Your task to perform on an android device: open app "Expedia: Hotels, Flights & Car" (install if not already installed) and go to login screen Image 0: 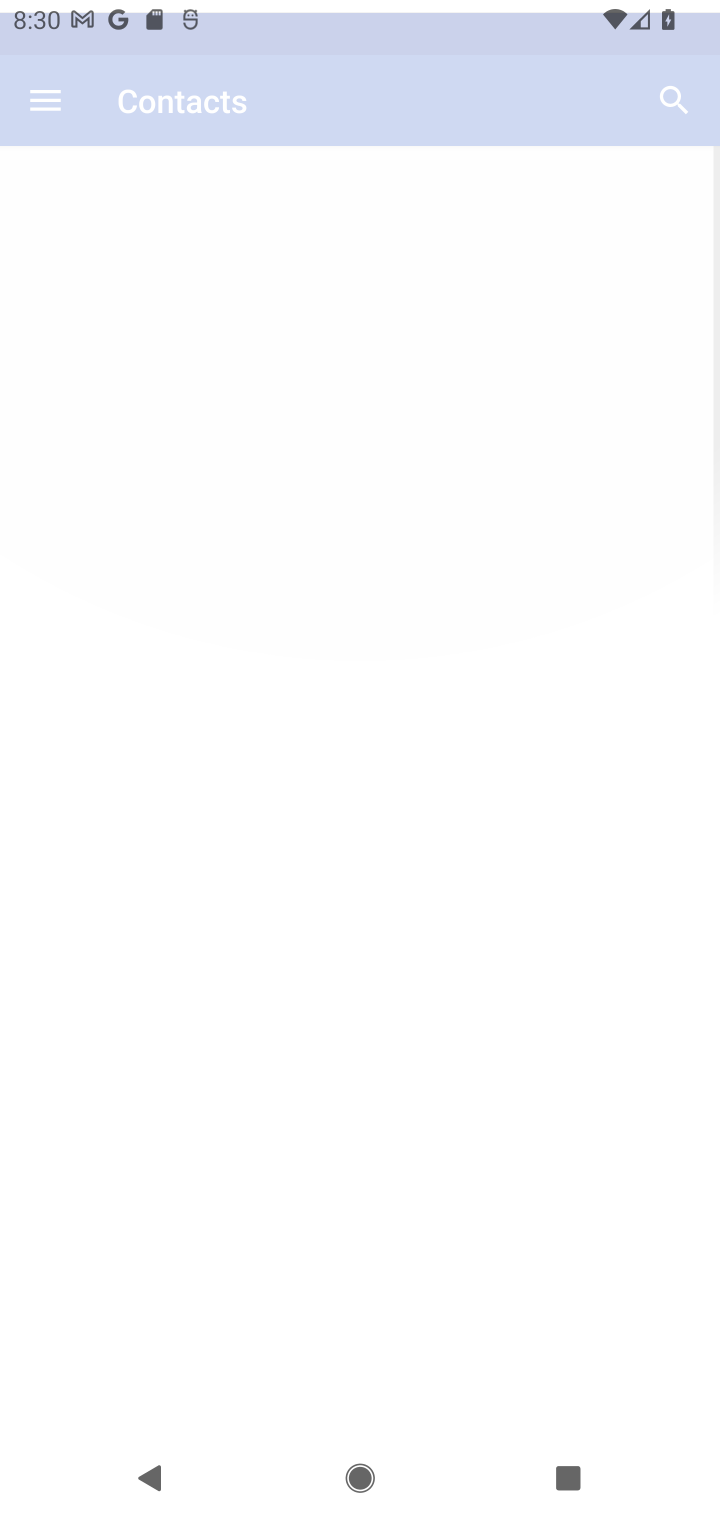
Step 0: press home button
Your task to perform on an android device: open app "Expedia: Hotels, Flights & Car" (install if not already installed) and go to login screen Image 1: 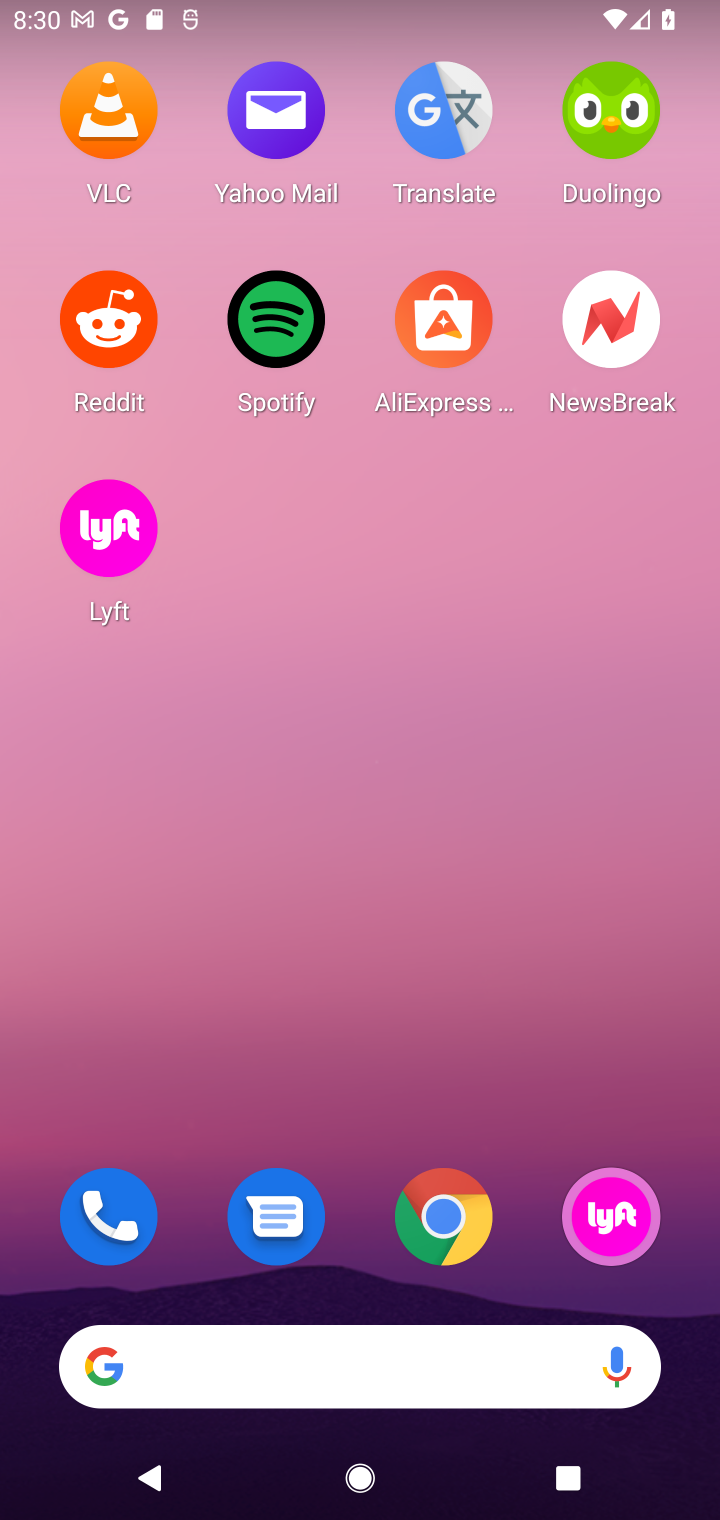
Step 1: press home button
Your task to perform on an android device: open app "Expedia: Hotels, Flights & Car" (install if not already installed) and go to login screen Image 2: 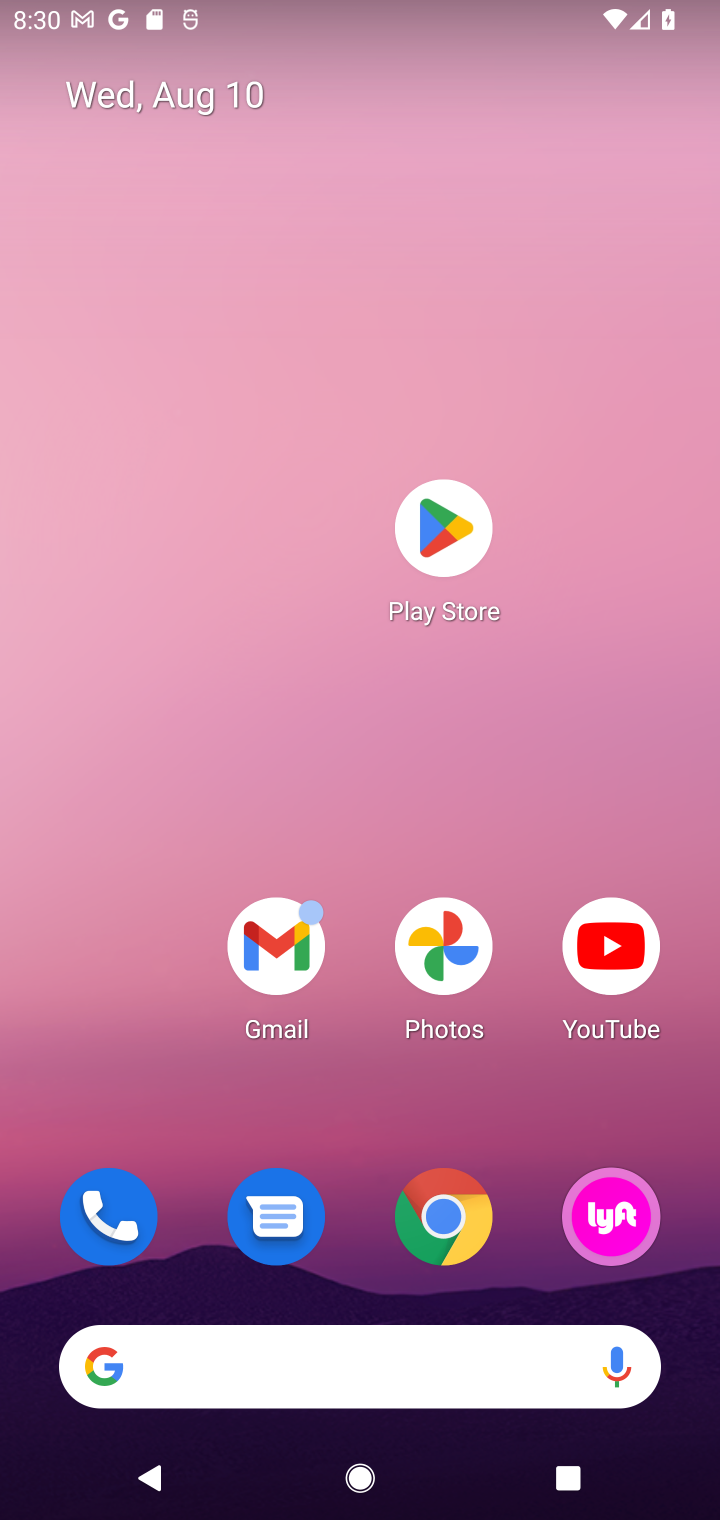
Step 2: click (437, 525)
Your task to perform on an android device: open app "Expedia: Hotels, Flights & Car" (install if not already installed) and go to login screen Image 3: 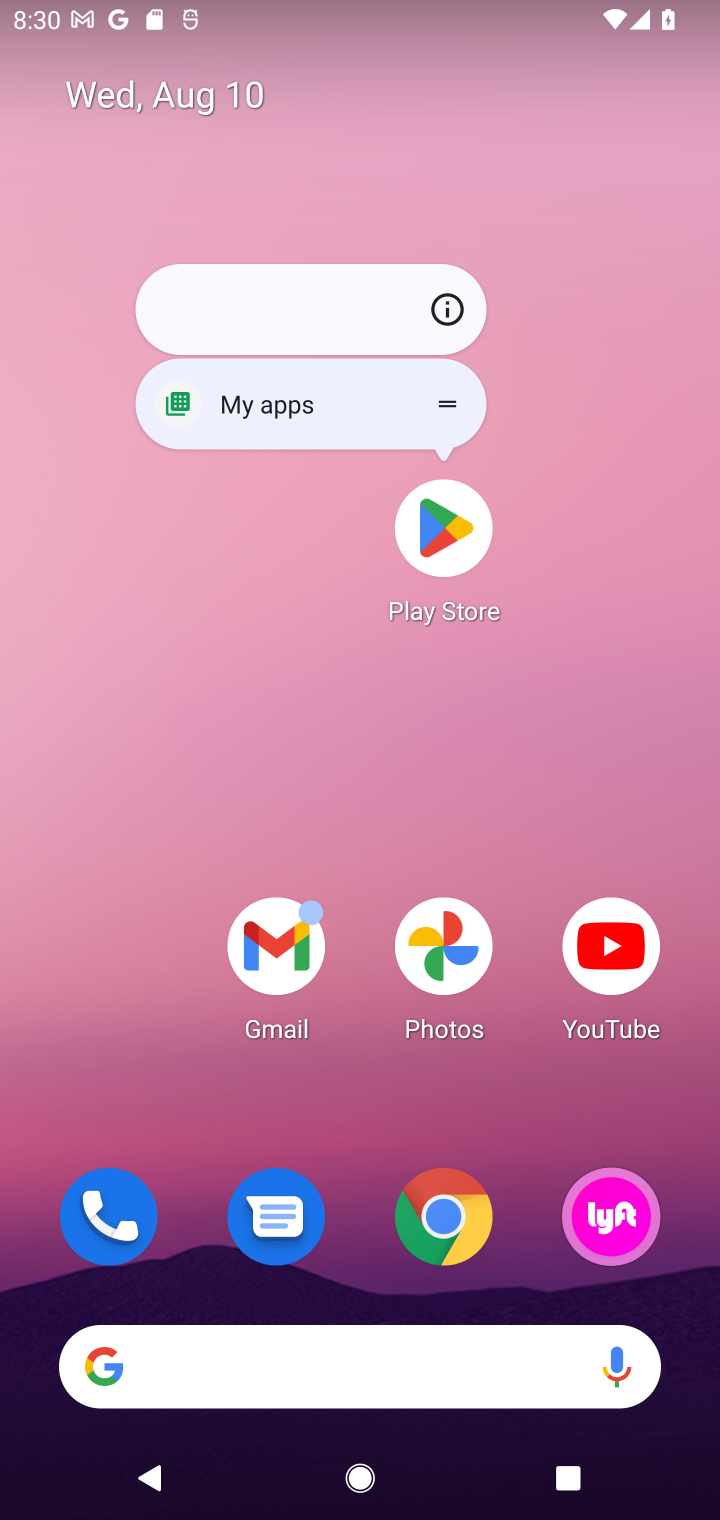
Step 3: click (439, 527)
Your task to perform on an android device: open app "Expedia: Hotels, Flights & Car" (install if not already installed) and go to login screen Image 4: 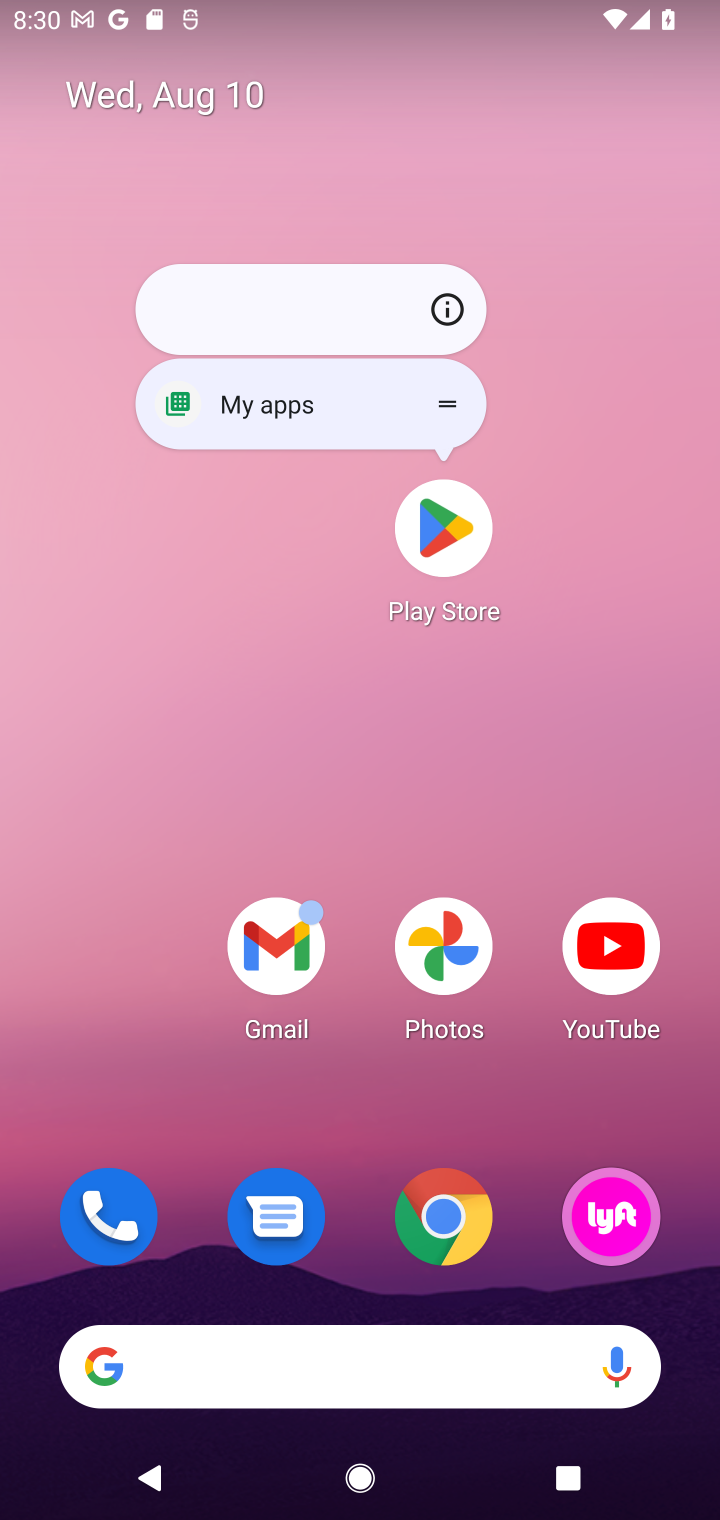
Step 4: click (439, 527)
Your task to perform on an android device: open app "Expedia: Hotels, Flights & Car" (install if not already installed) and go to login screen Image 5: 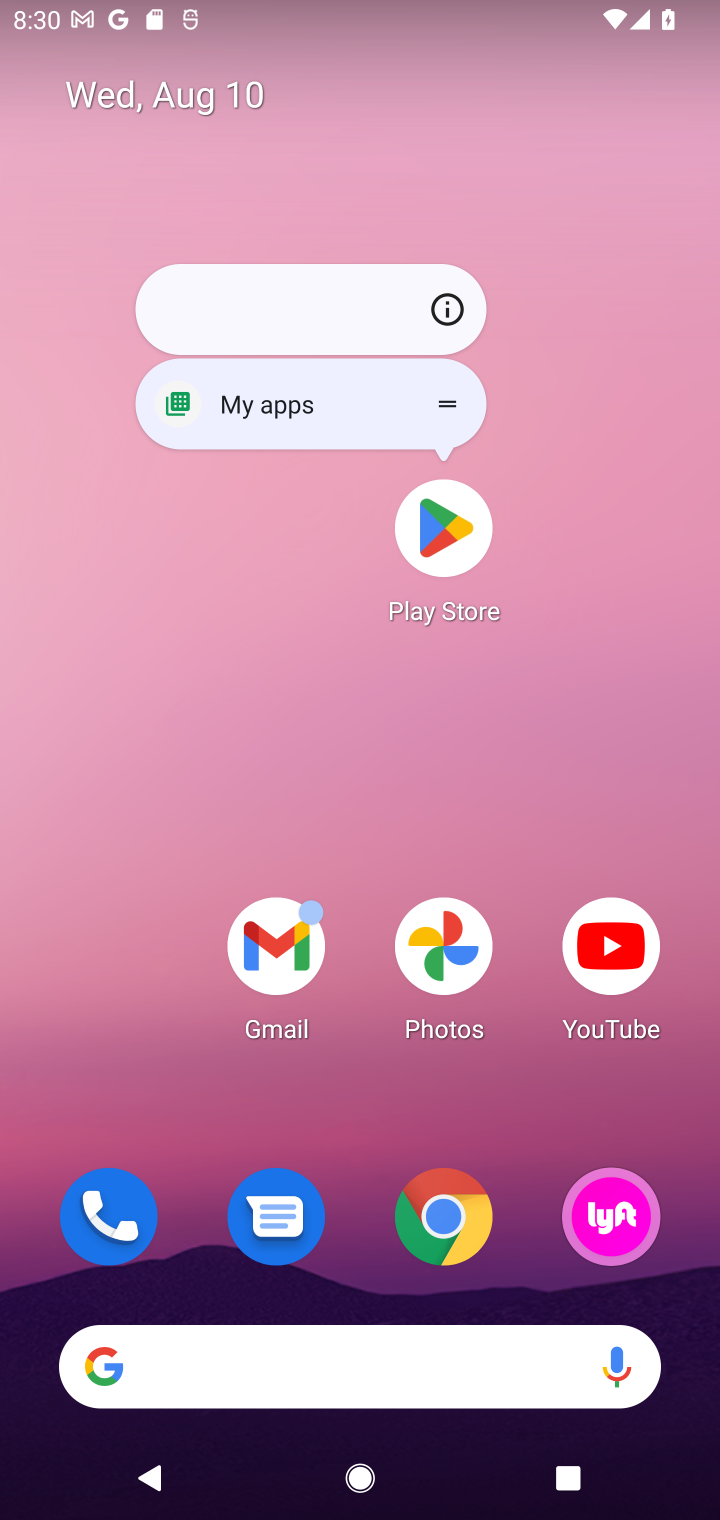
Step 5: click (439, 527)
Your task to perform on an android device: open app "Expedia: Hotels, Flights & Car" (install if not already installed) and go to login screen Image 6: 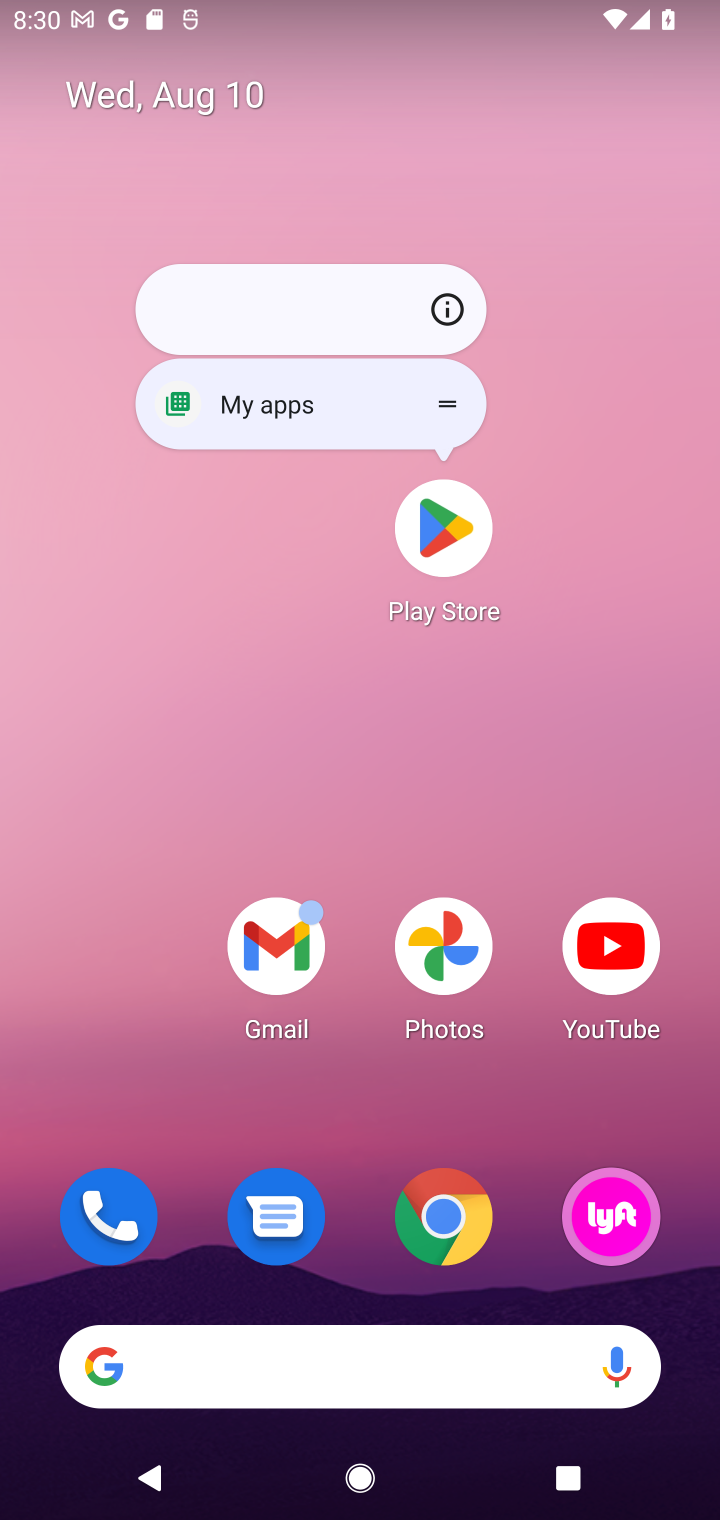
Step 6: click (439, 529)
Your task to perform on an android device: open app "Expedia: Hotels, Flights & Car" (install if not already installed) and go to login screen Image 7: 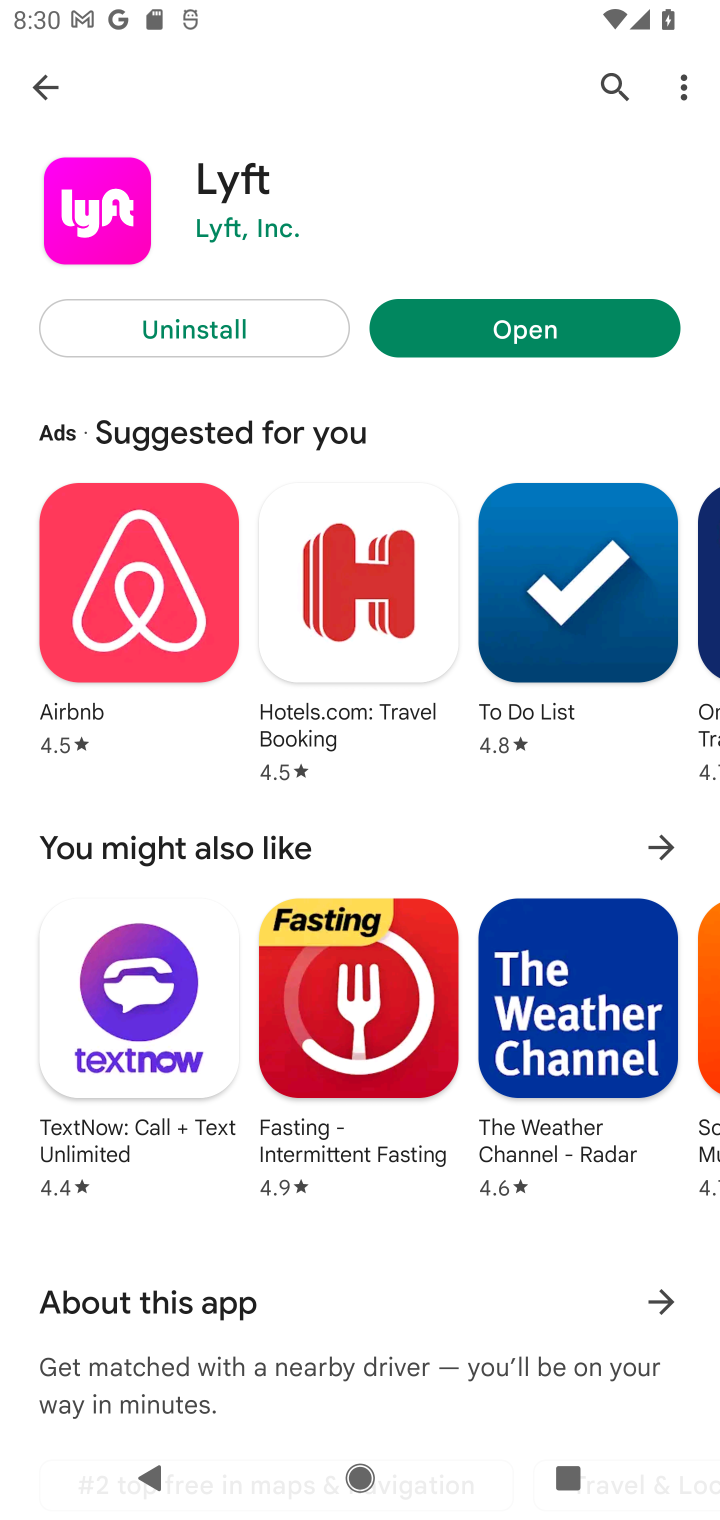
Step 7: click (601, 74)
Your task to perform on an android device: open app "Expedia: Hotels, Flights & Car" (install if not already installed) and go to login screen Image 8: 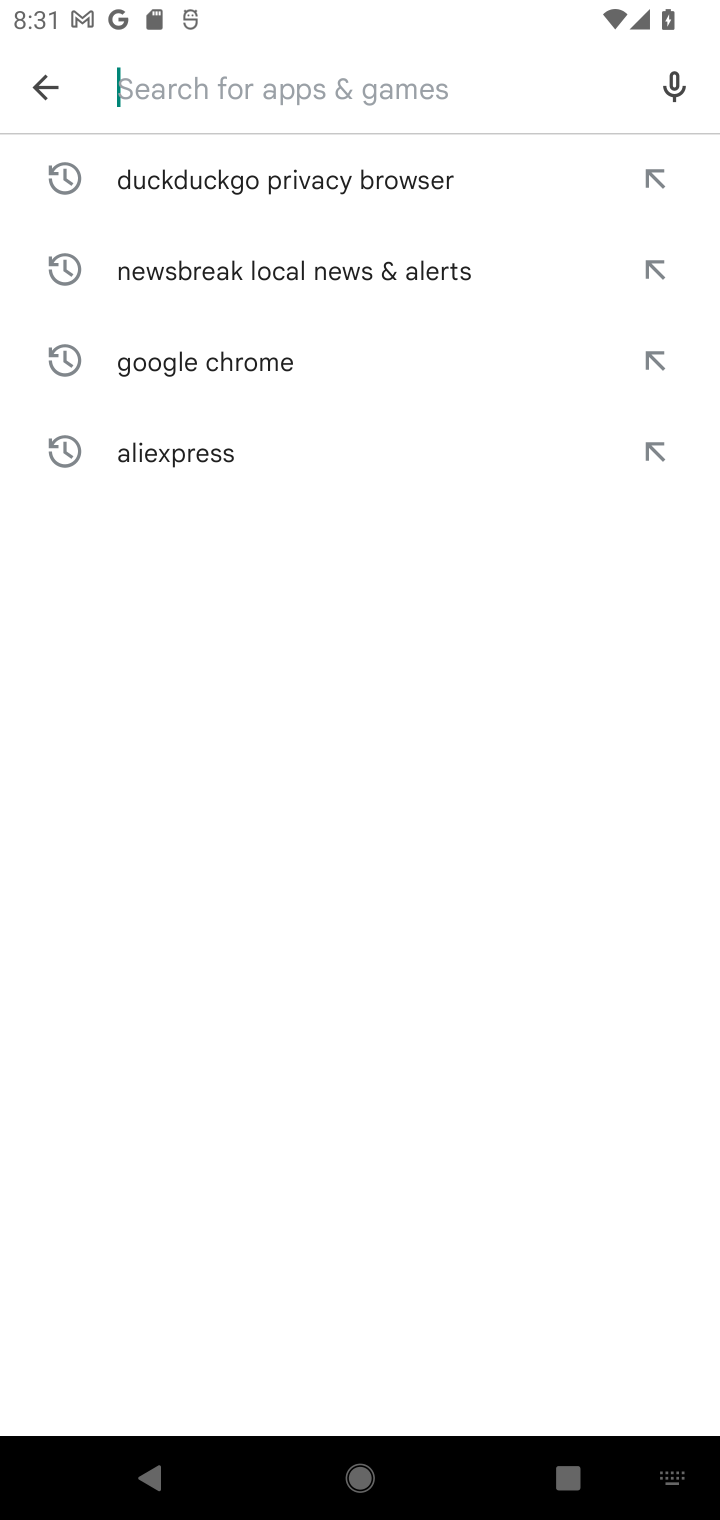
Step 8: type "Expedia: Hotels, Flights & Car"
Your task to perform on an android device: open app "Expedia: Hotels, Flights & Car" (install if not already installed) and go to login screen Image 9: 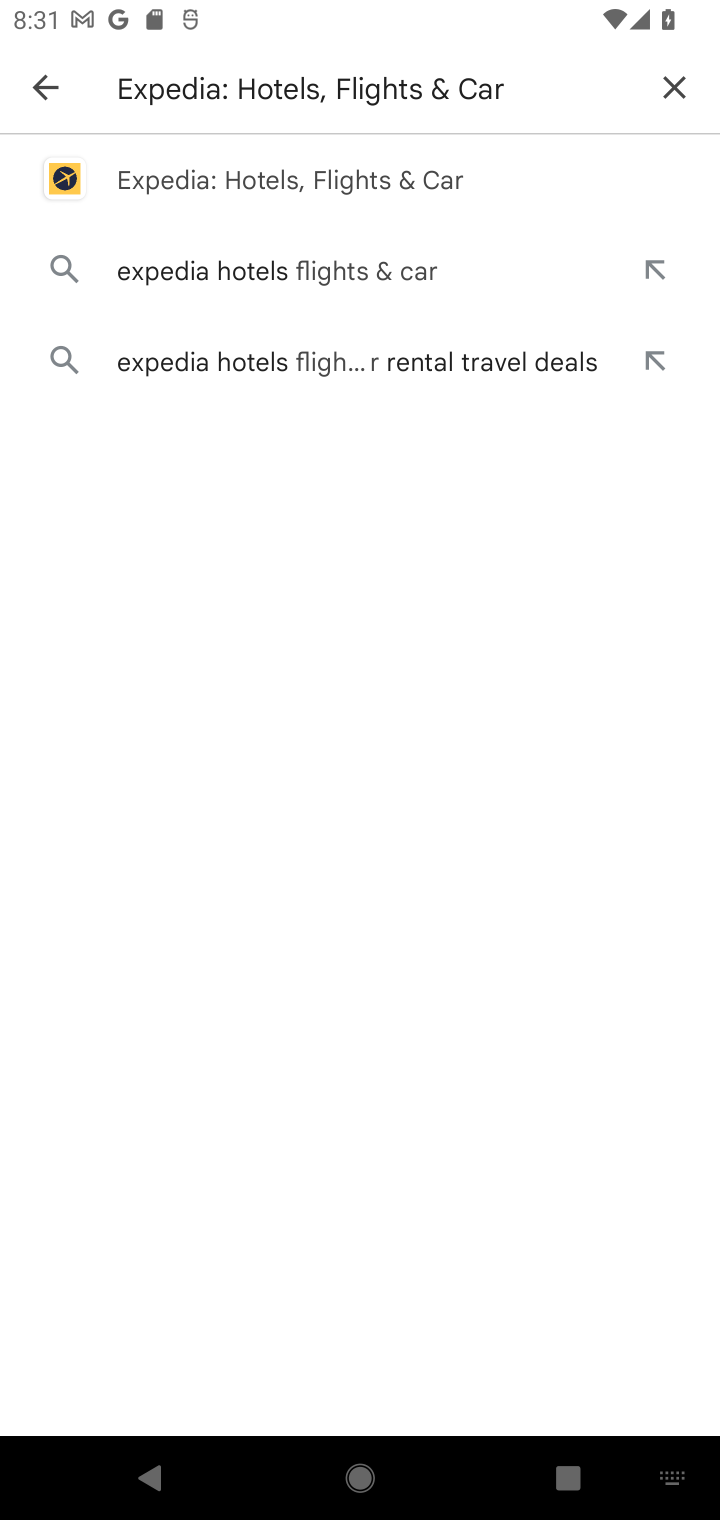
Step 9: click (320, 184)
Your task to perform on an android device: open app "Expedia: Hotels, Flights & Car" (install if not already installed) and go to login screen Image 10: 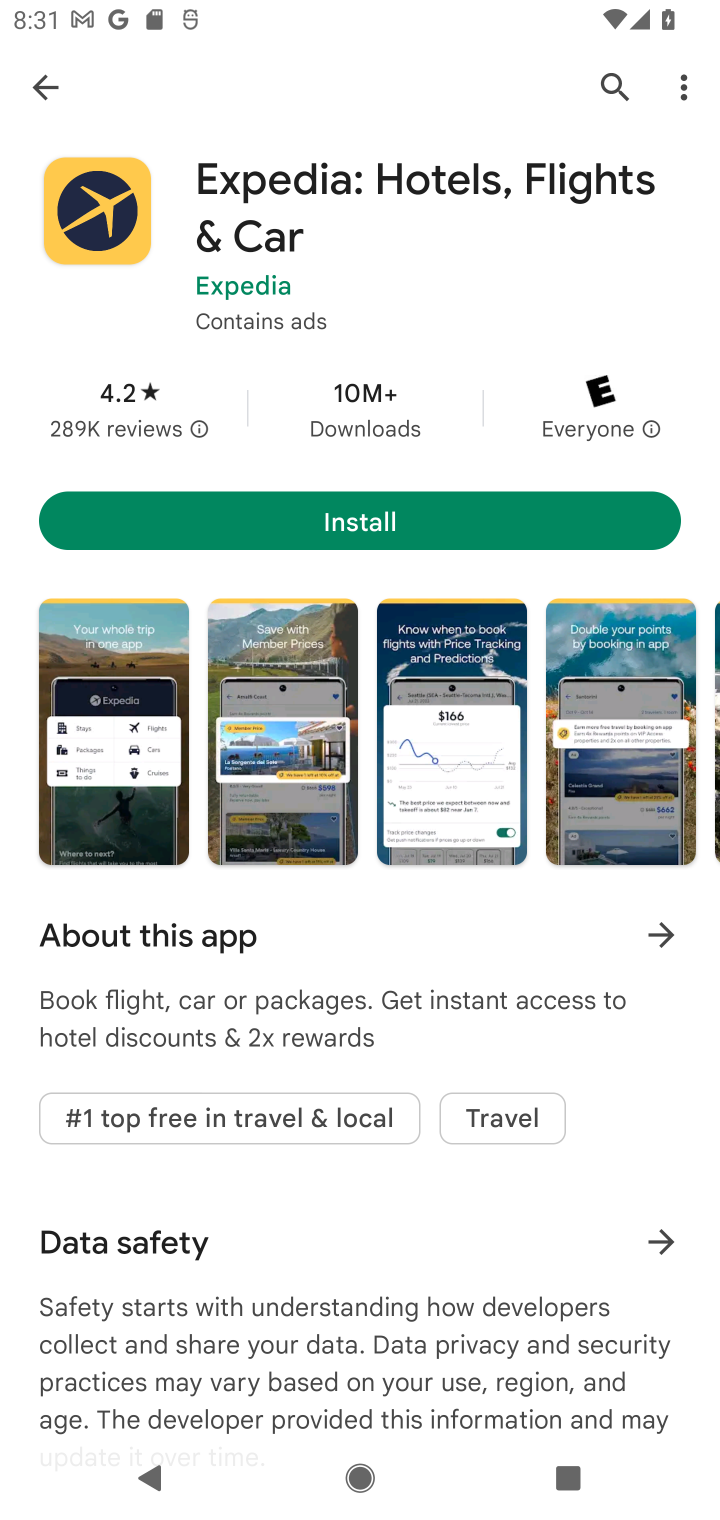
Step 10: click (410, 508)
Your task to perform on an android device: open app "Expedia: Hotels, Flights & Car" (install if not already installed) and go to login screen Image 11: 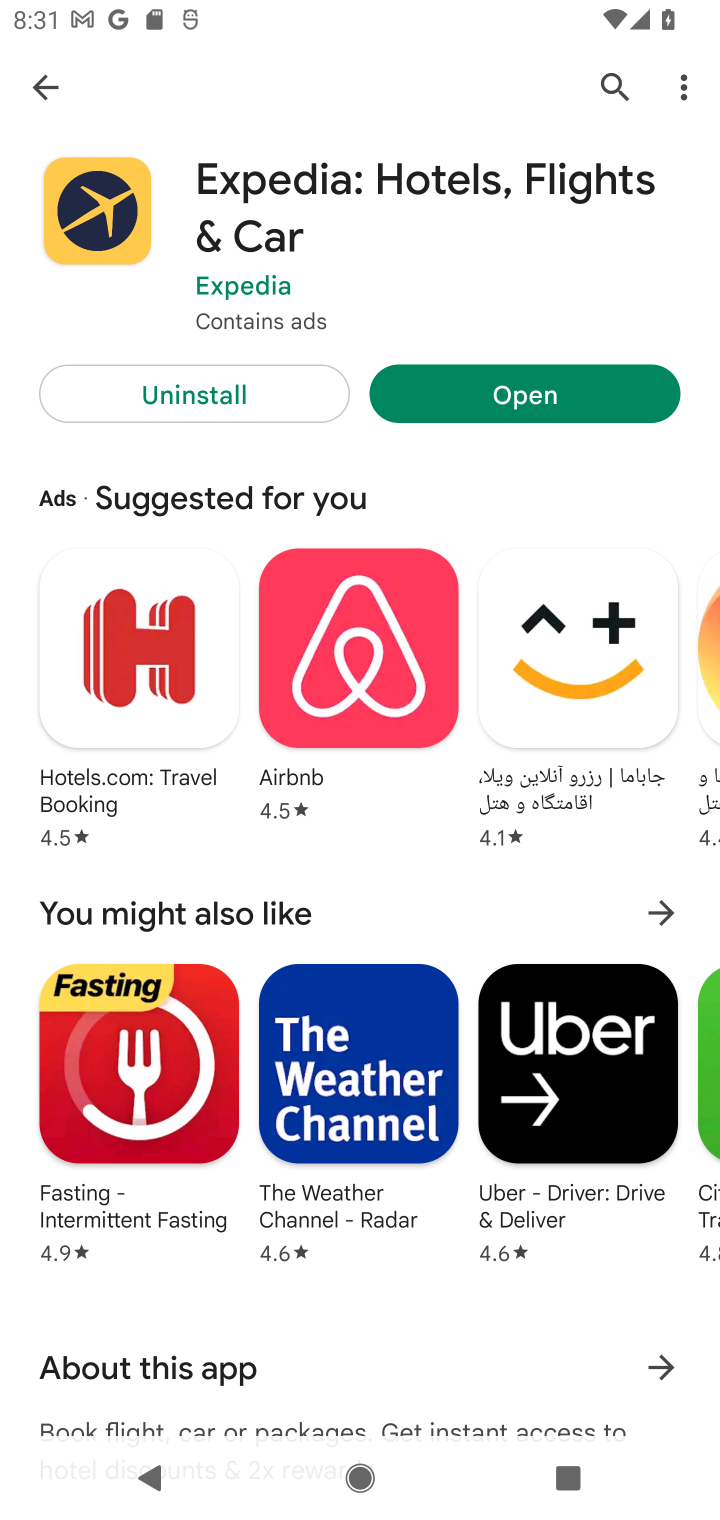
Step 11: click (557, 370)
Your task to perform on an android device: open app "Expedia: Hotels, Flights & Car" (install if not already installed) and go to login screen Image 12: 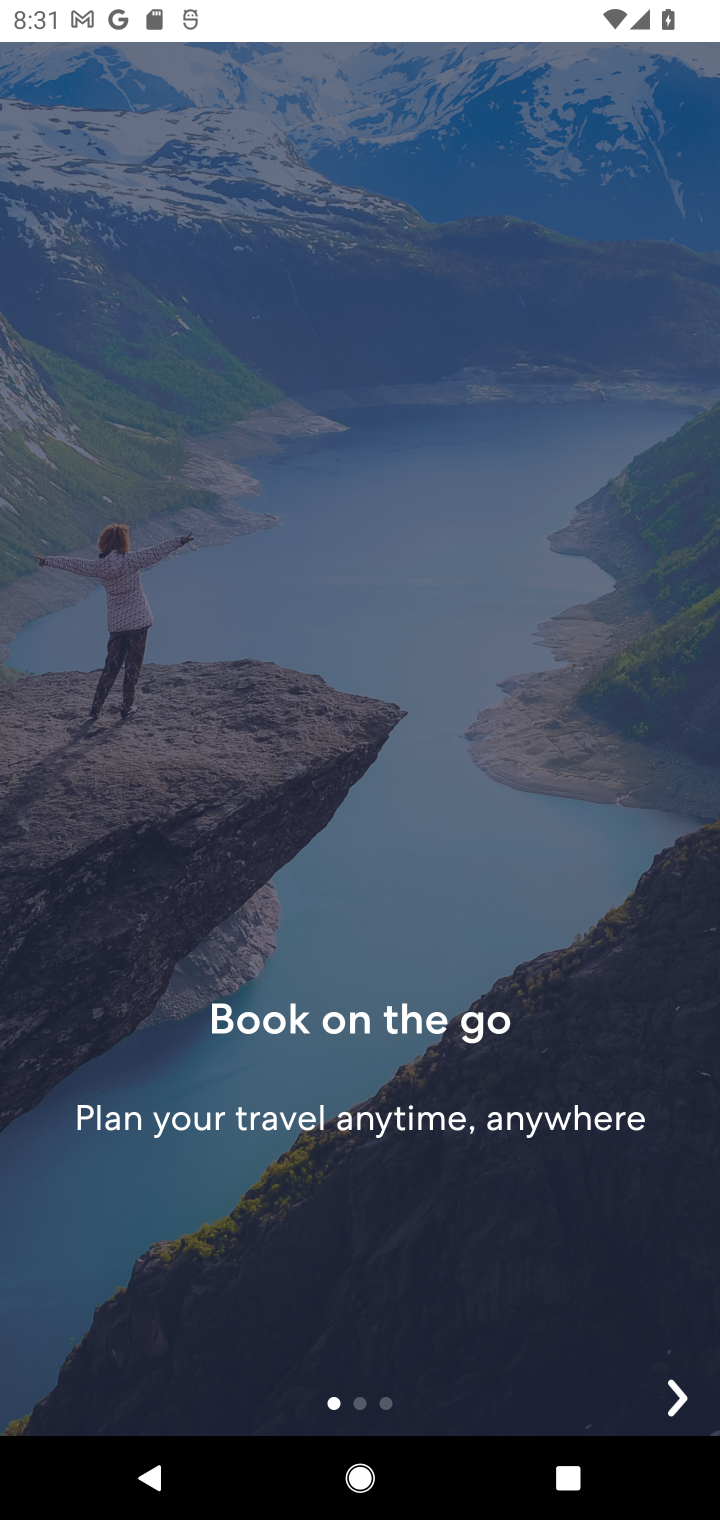
Step 12: click (667, 1381)
Your task to perform on an android device: open app "Expedia: Hotels, Flights & Car" (install if not already installed) and go to login screen Image 13: 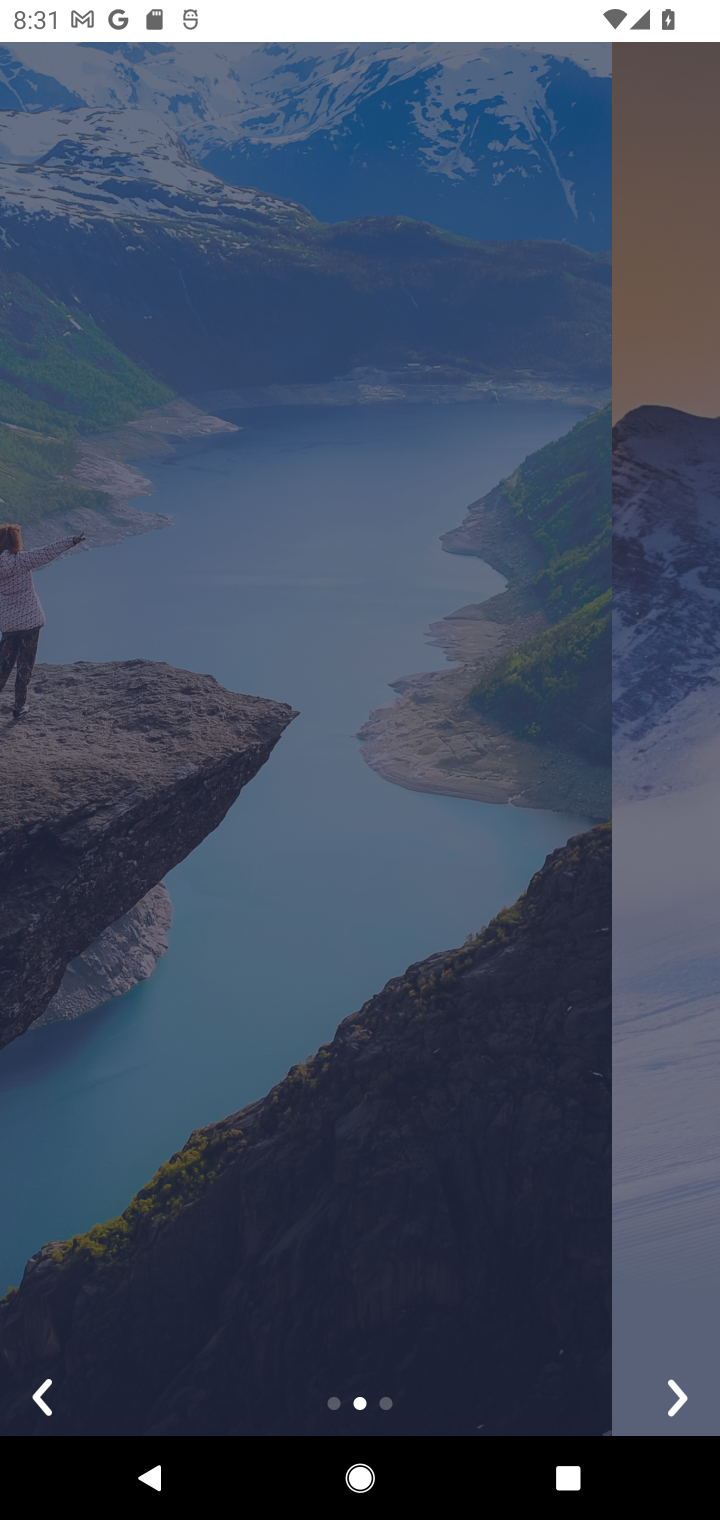
Step 13: click (678, 1395)
Your task to perform on an android device: open app "Expedia: Hotels, Flights & Car" (install if not already installed) and go to login screen Image 14: 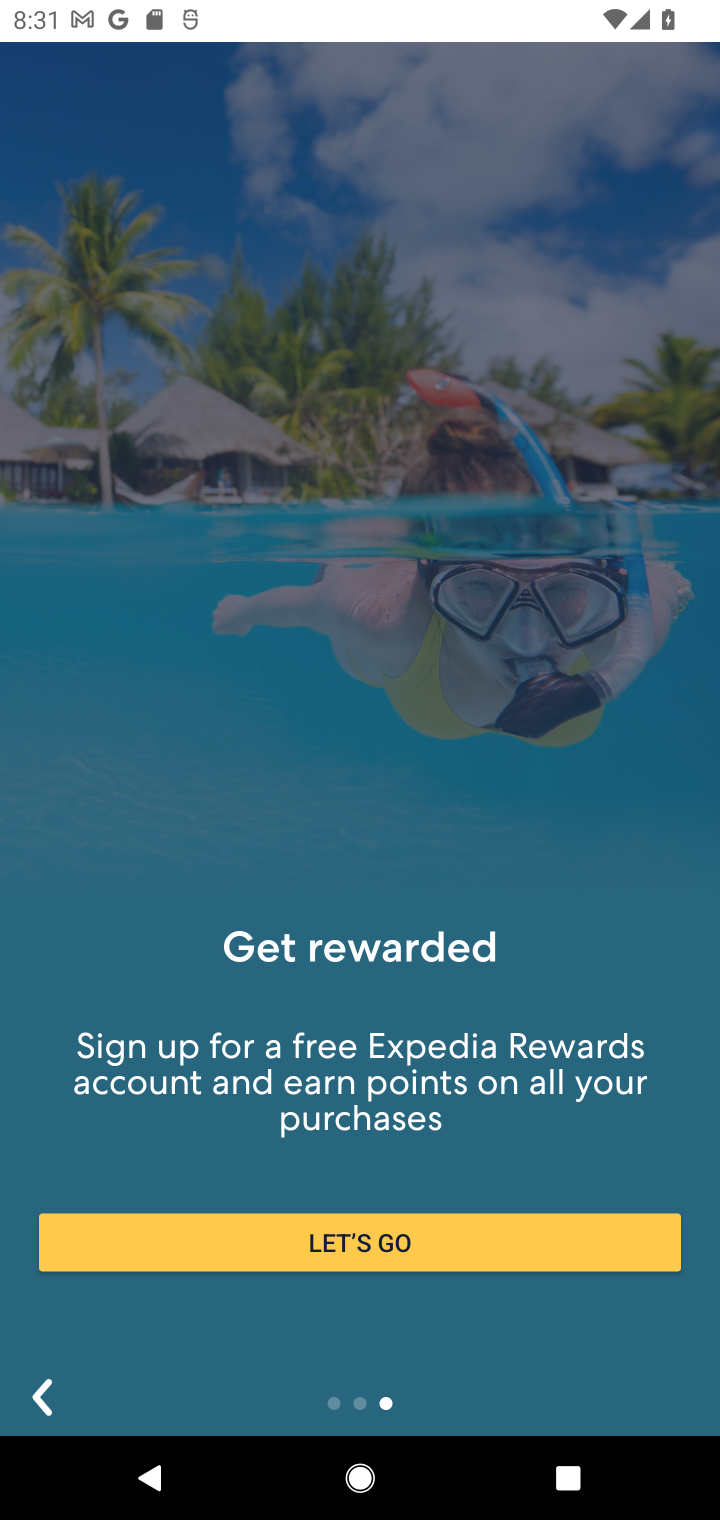
Step 14: click (457, 1227)
Your task to perform on an android device: open app "Expedia: Hotels, Flights & Car" (install if not already installed) and go to login screen Image 15: 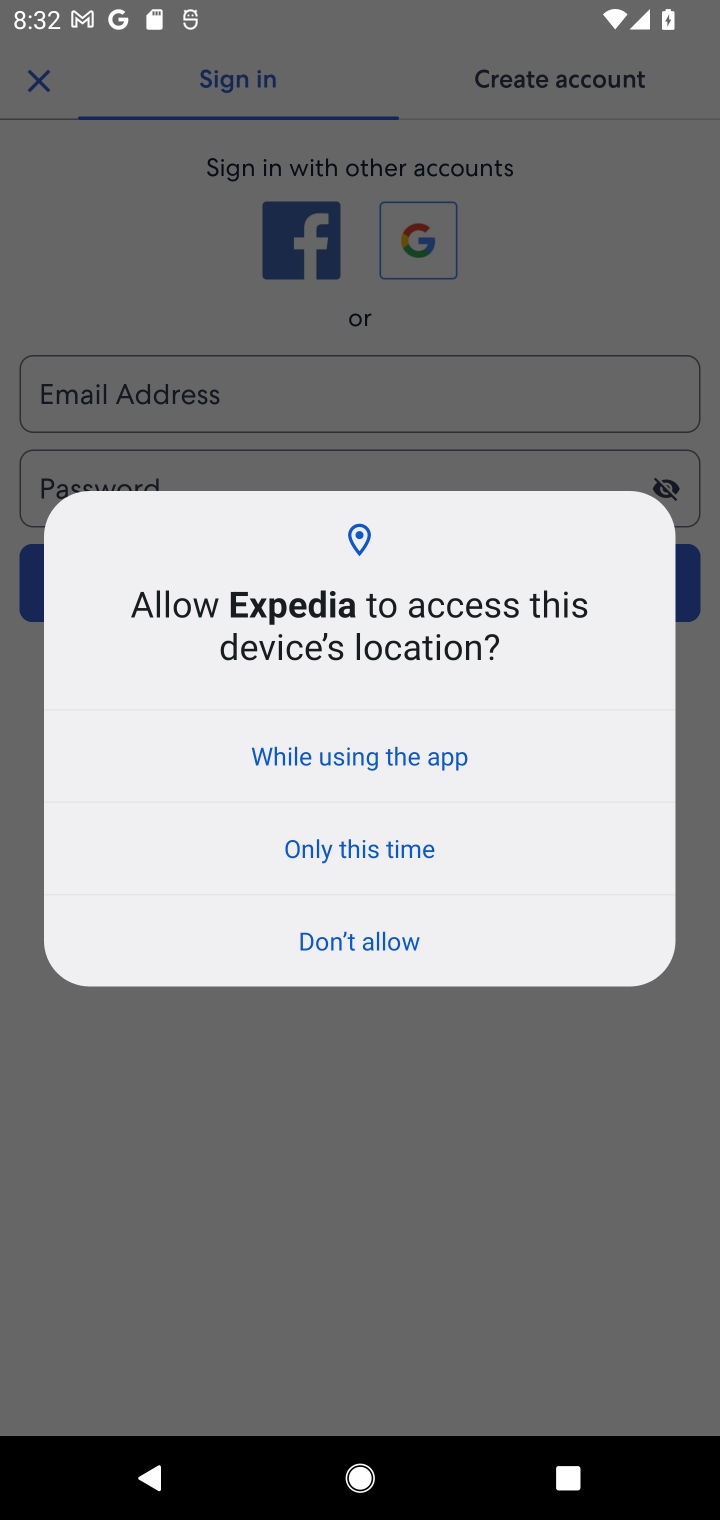
Step 15: task complete